Your task to perform on an android device: Open Reddit.com Image 0: 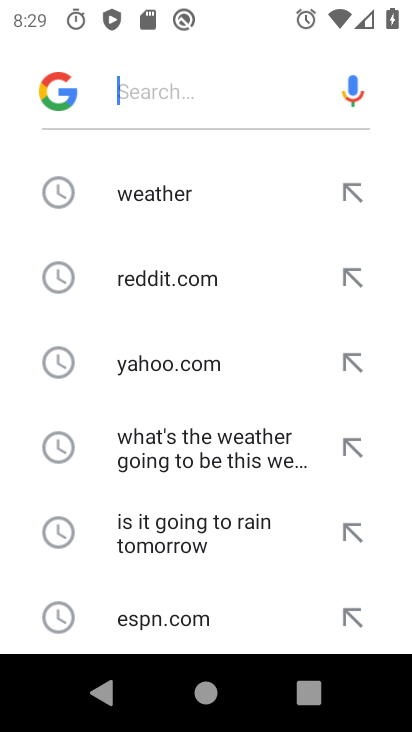
Step 0: click (223, 699)
Your task to perform on an android device: Open Reddit.com Image 1: 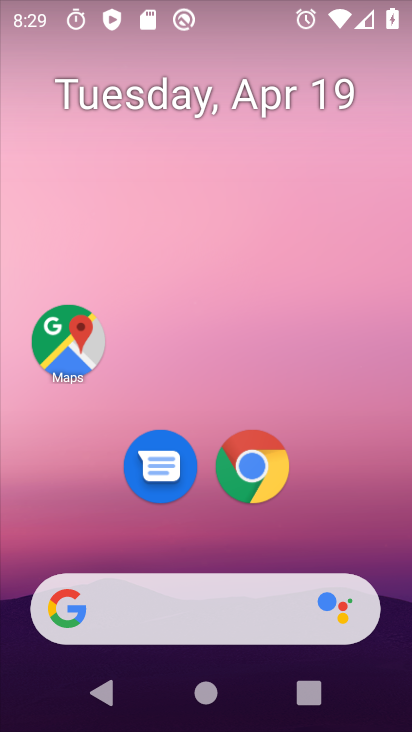
Step 1: click (256, 480)
Your task to perform on an android device: Open Reddit.com Image 2: 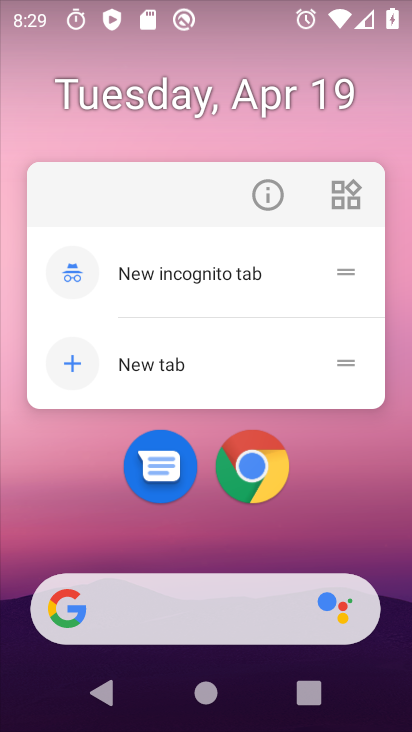
Step 2: click (256, 480)
Your task to perform on an android device: Open Reddit.com Image 3: 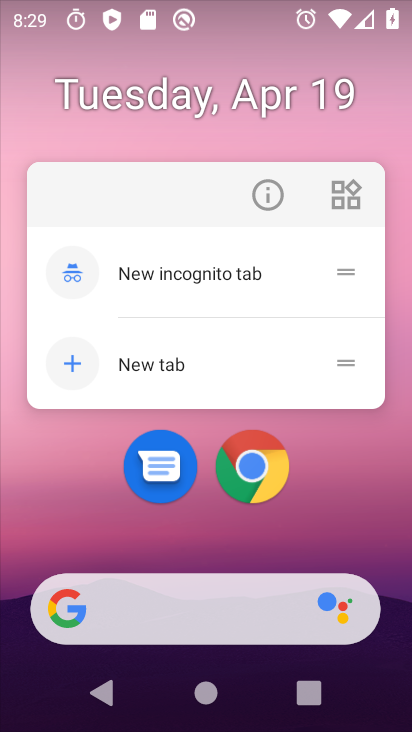
Step 3: click (256, 480)
Your task to perform on an android device: Open Reddit.com Image 4: 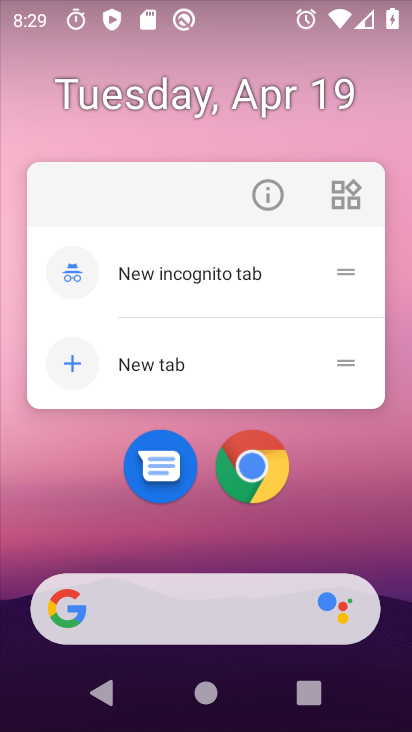
Step 4: click (256, 480)
Your task to perform on an android device: Open Reddit.com Image 5: 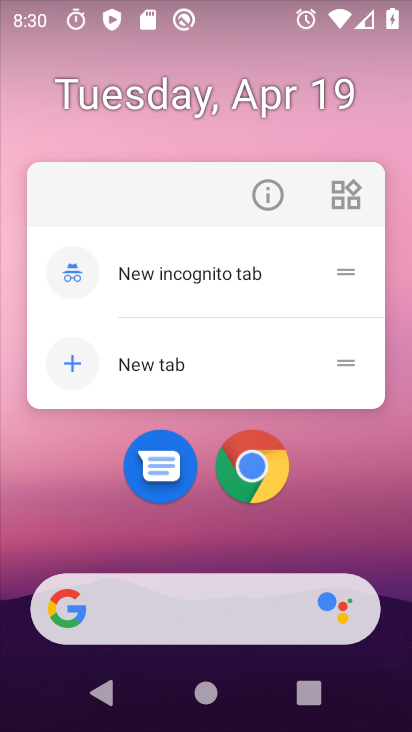
Step 5: click (256, 480)
Your task to perform on an android device: Open Reddit.com Image 6: 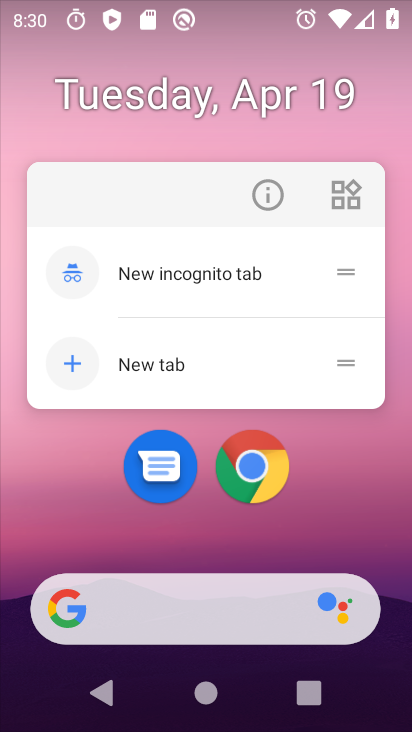
Step 6: click (269, 467)
Your task to perform on an android device: Open Reddit.com Image 7: 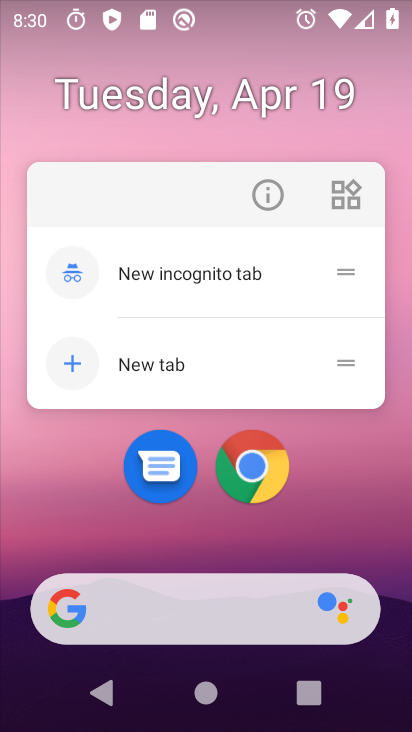
Step 7: click (260, 442)
Your task to perform on an android device: Open Reddit.com Image 8: 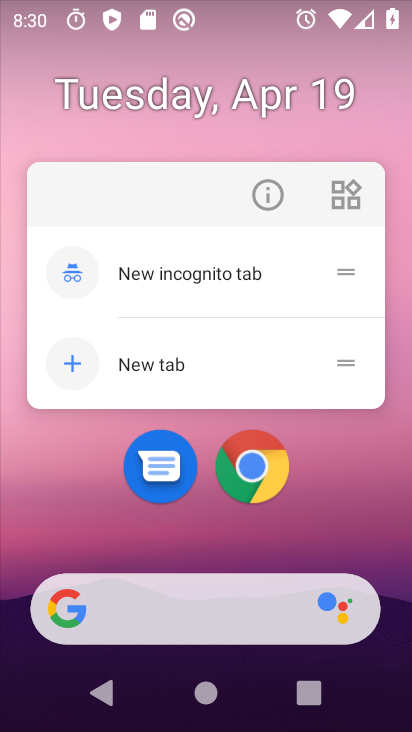
Step 8: click (257, 472)
Your task to perform on an android device: Open Reddit.com Image 9: 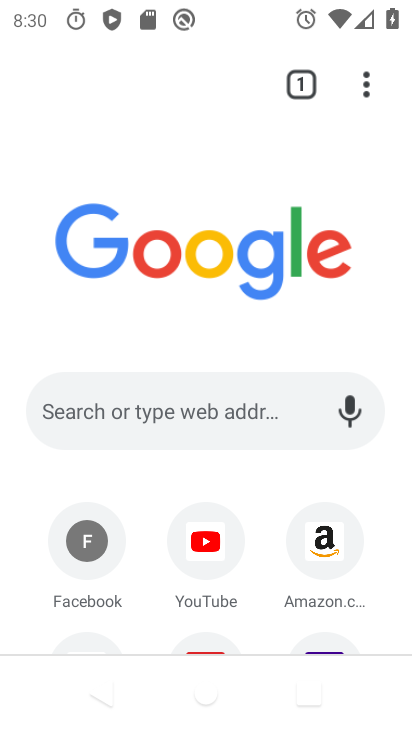
Step 9: drag from (382, 592) to (396, 317)
Your task to perform on an android device: Open Reddit.com Image 10: 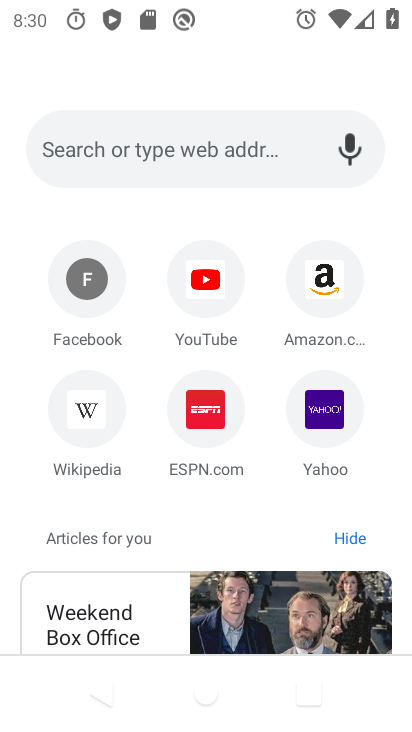
Step 10: click (195, 167)
Your task to perform on an android device: Open Reddit.com Image 11: 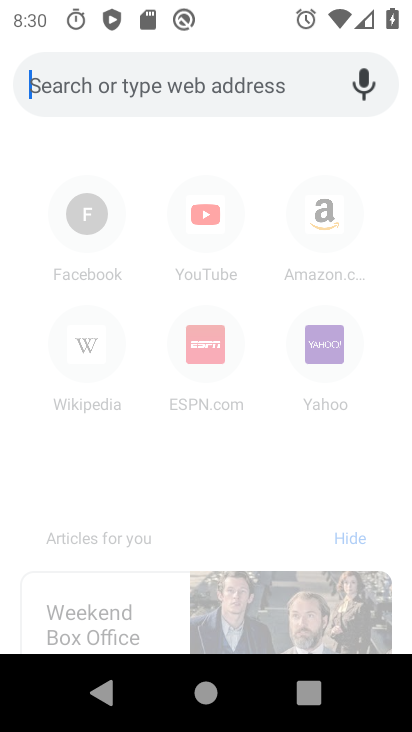
Step 11: type "reddit.com"
Your task to perform on an android device: Open Reddit.com Image 12: 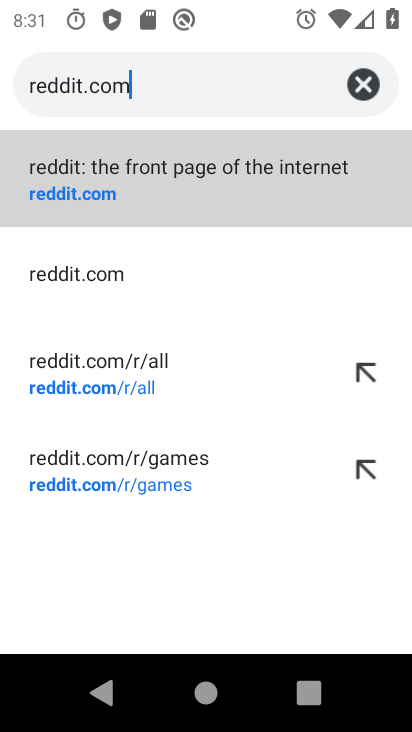
Step 12: click (92, 192)
Your task to perform on an android device: Open Reddit.com Image 13: 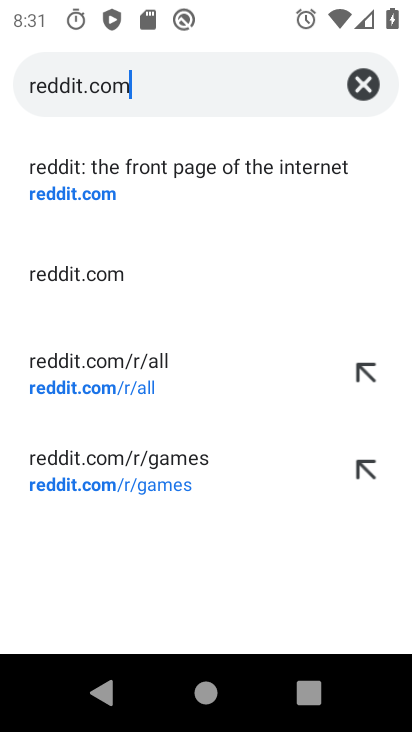
Step 13: click (92, 191)
Your task to perform on an android device: Open Reddit.com Image 14: 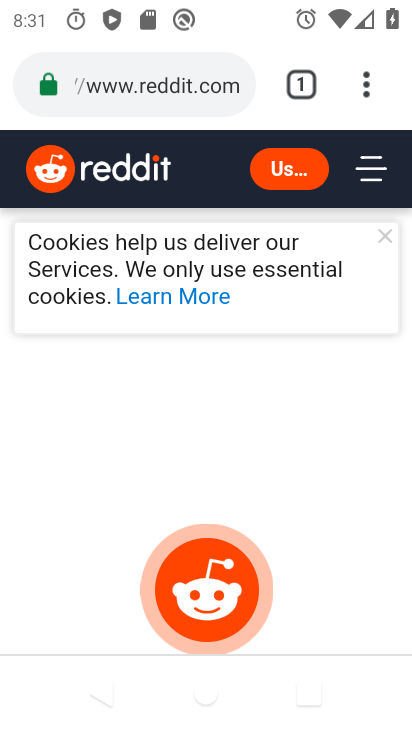
Step 14: task complete